Your task to perform on an android device: Add "logitech g910" to the cart on target.com, then select checkout. Image 0: 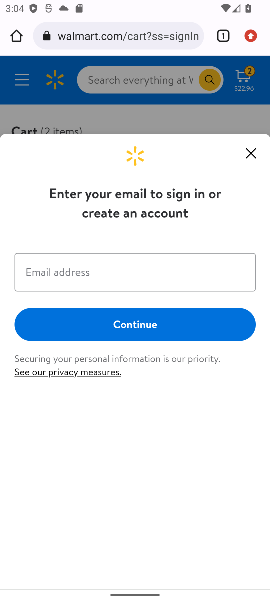
Step 0: click (146, 29)
Your task to perform on an android device: Add "logitech g910" to the cart on target.com, then select checkout. Image 1: 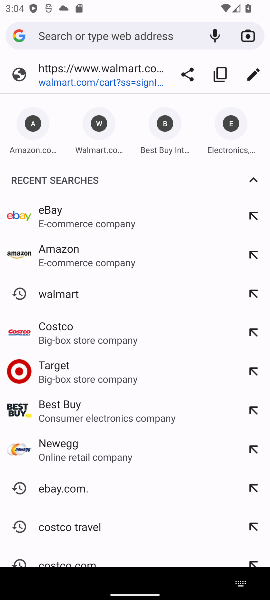
Step 1: type "target.com"
Your task to perform on an android device: Add "logitech g910" to the cart on target.com, then select checkout. Image 2: 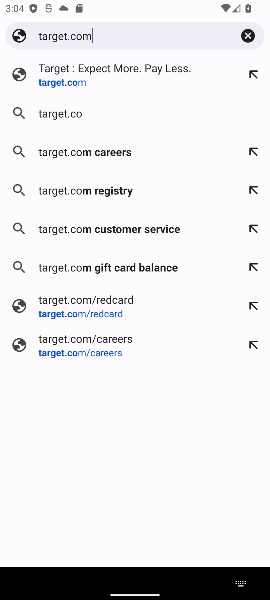
Step 2: press enter
Your task to perform on an android device: Add "logitech g910" to the cart on target.com, then select checkout. Image 3: 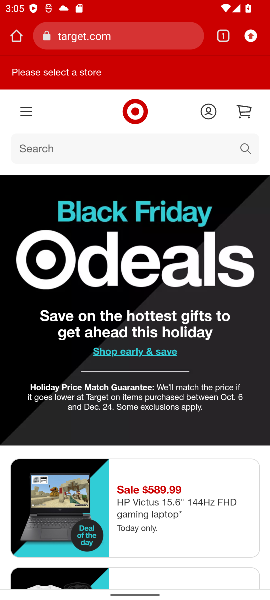
Step 3: click (120, 154)
Your task to perform on an android device: Add "logitech g910" to the cart on target.com, then select checkout. Image 4: 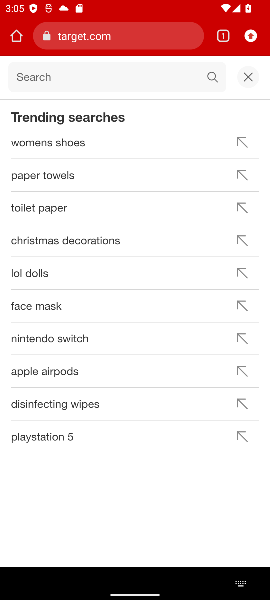
Step 4: type "logitech g910"
Your task to perform on an android device: Add "logitech g910" to the cart on target.com, then select checkout. Image 5: 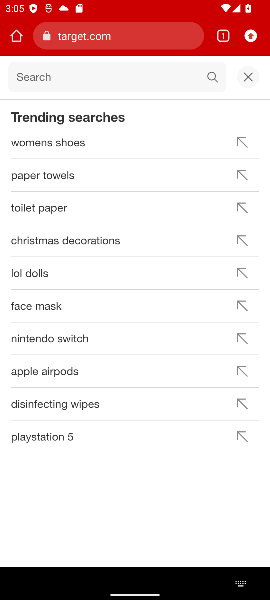
Step 5: press enter
Your task to perform on an android device: Add "logitech g910" to the cart on target.com, then select checkout. Image 6: 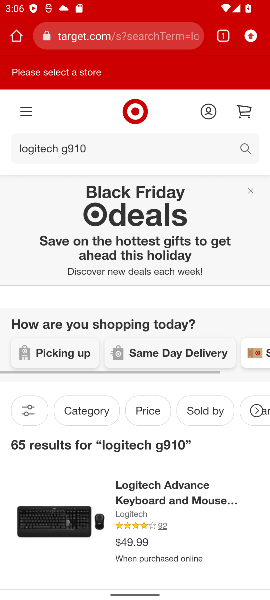
Step 6: drag from (94, 433) to (113, 216)
Your task to perform on an android device: Add "logitech g910" to the cart on target.com, then select checkout. Image 7: 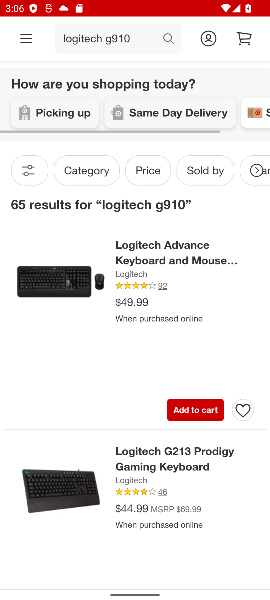
Step 7: click (180, 411)
Your task to perform on an android device: Add "logitech g910" to the cart on target.com, then select checkout. Image 8: 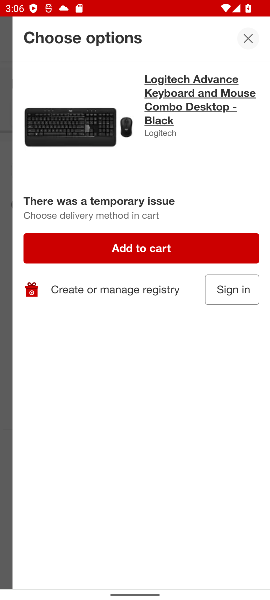
Step 8: click (147, 254)
Your task to perform on an android device: Add "logitech g910" to the cart on target.com, then select checkout. Image 9: 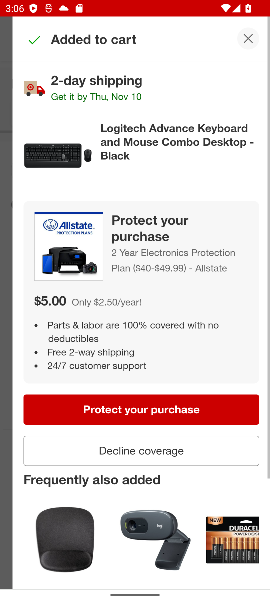
Step 9: drag from (159, 492) to (184, 281)
Your task to perform on an android device: Add "logitech g910" to the cart on target.com, then select checkout. Image 10: 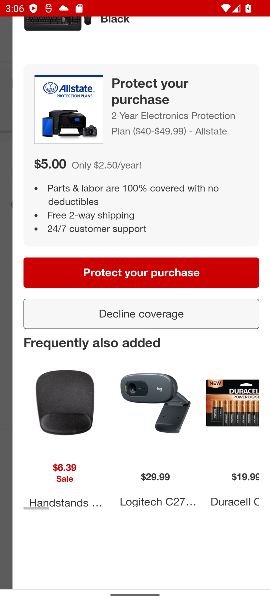
Step 10: drag from (168, 460) to (177, 230)
Your task to perform on an android device: Add "logitech g910" to the cart on target.com, then select checkout. Image 11: 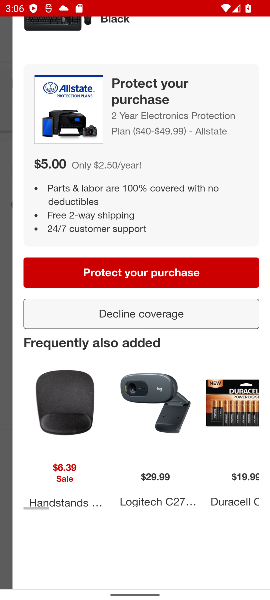
Step 11: drag from (182, 241) to (190, 442)
Your task to perform on an android device: Add "logitech g910" to the cart on target.com, then select checkout. Image 12: 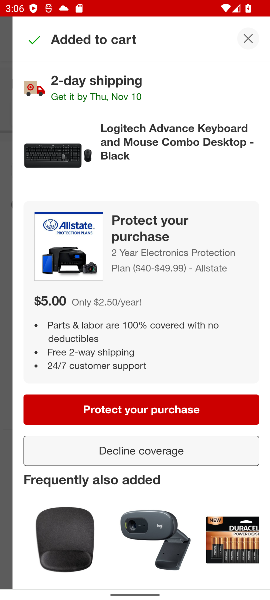
Step 12: drag from (149, 280) to (150, 385)
Your task to perform on an android device: Add "logitech g910" to the cart on target.com, then select checkout. Image 13: 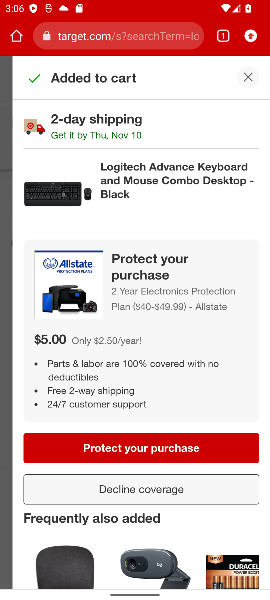
Step 13: click (243, 75)
Your task to perform on an android device: Add "logitech g910" to the cart on target.com, then select checkout. Image 14: 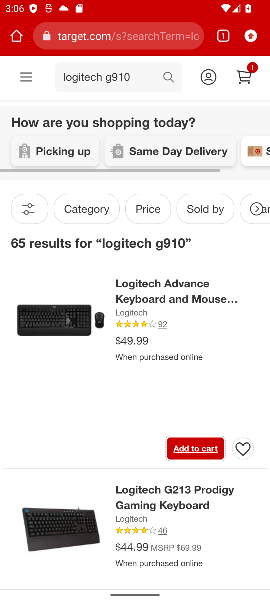
Step 14: click (243, 74)
Your task to perform on an android device: Add "logitech g910" to the cart on target.com, then select checkout. Image 15: 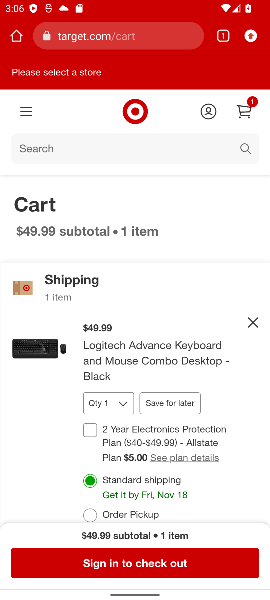
Step 15: click (178, 552)
Your task to perform on an android device: Add "logitech g910" to the cart on target.com, then select checkout. Image 16: 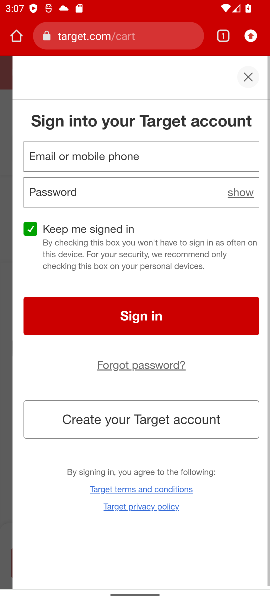
Step 16: task complete